Your task to perform on an android device: What's the weather going to be this weekend? Image 0: 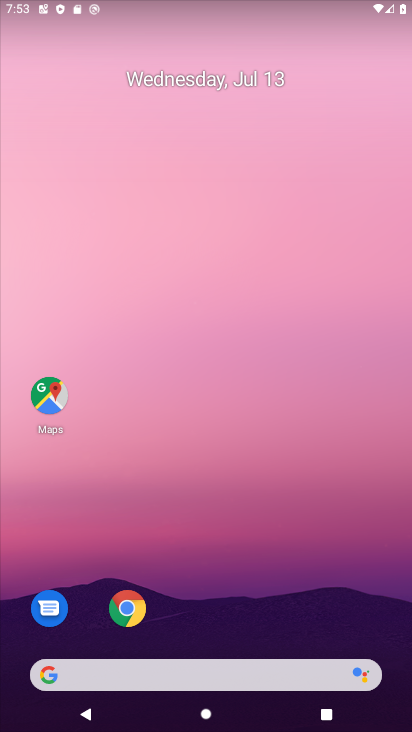
Step 0: click (205, 664)
Your task to perform on an android device: What's the weather going to be this weekend? Image 1: 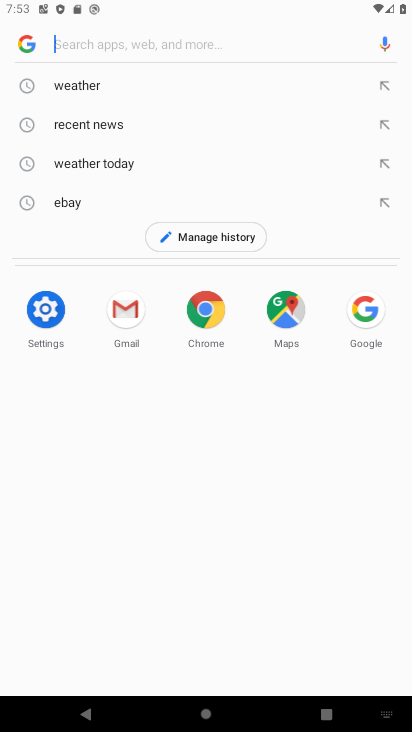
Step 1: click (63, 66)
Your task to perform on an android device: What's the weather going to be this weekend? Image 2: 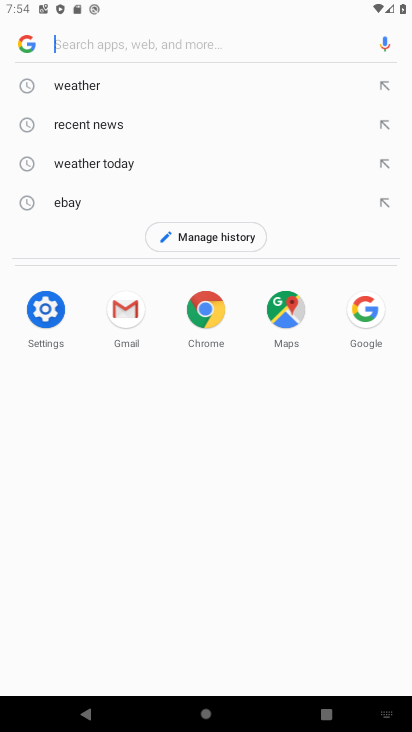
Step 2: click (84, 94)
Your task to perform on an android device: What's the weather going to be this weekend? Image 3: 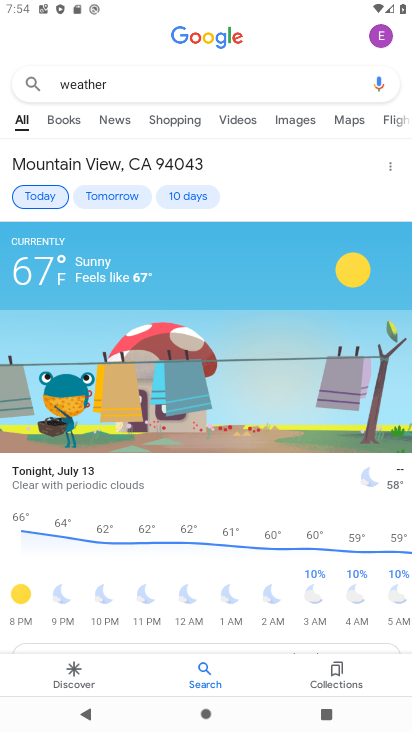
Step 3: click (175, 195)
Your task to perform on an android device: What's the weather going to be this weekend? Image 4: 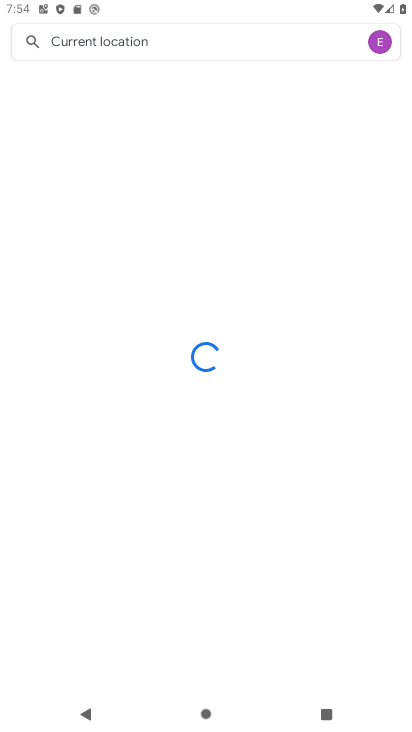
Step 4: task complete